Your task to perform on an android device: stop showing notifications on the lock screen Image 0: 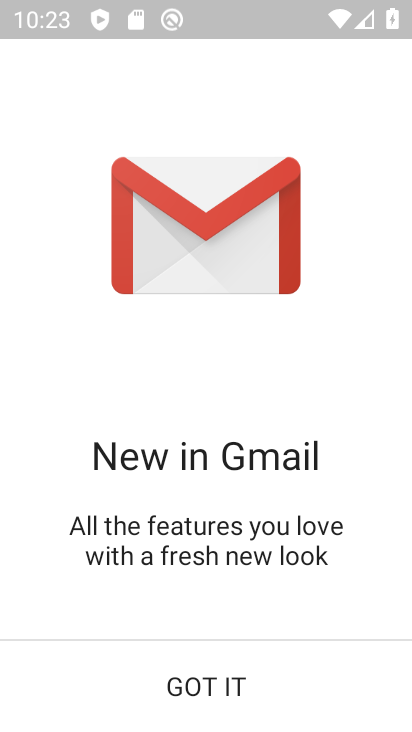
Step 0: press home button
Your task to perform on an android device: stop showing notifications on the lock screen Image 1: 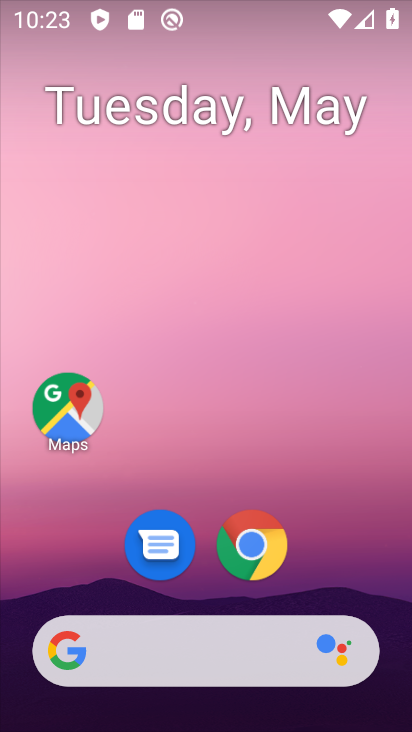
Step 1: drag from (232, 620) to (202, 173)
Your task to perform on an android device: stop showing notifications on the lock screen Image 2: 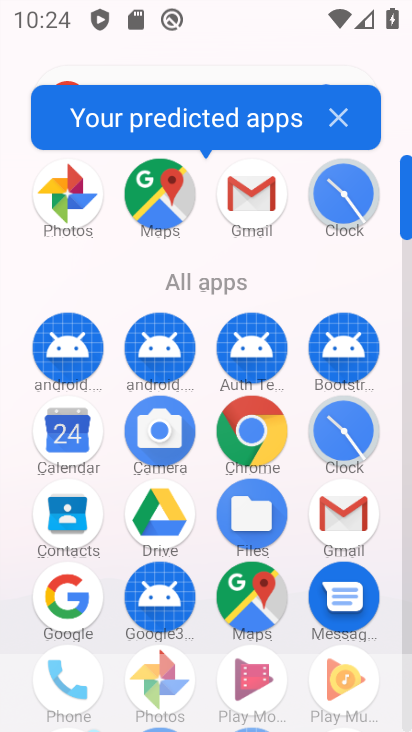
Step 2: drag from (204, 439) to (186, 265)
Your task to perform on an android device: stop showing notifications on the lock screen Image 3: 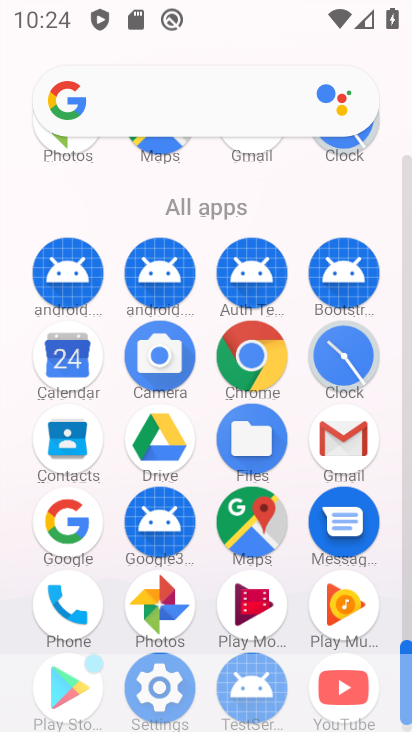
Step 3: drag from (190, 559) to (130, 157)
Your task to perform on an android device: stop showing notifications on the lock screen Image 4: 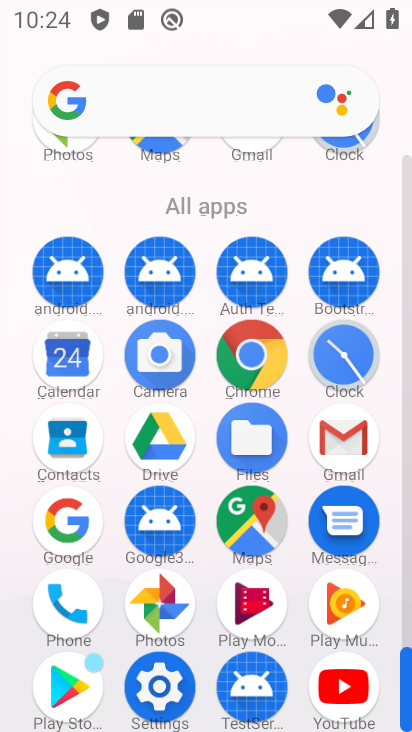
Step 4: click (170, 674)
Your task to perform on an android device: stop showing notifications on the lock screen Image 5: 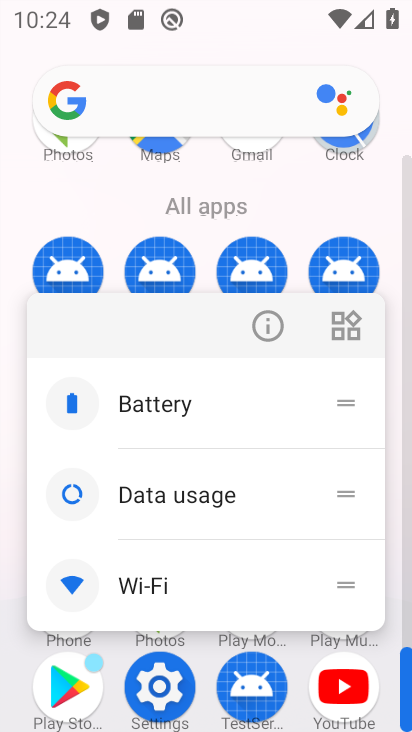
Step 5: click (156, 691)
Your task to perform on an android device: stop showing notifications on the lock screen Image 6: 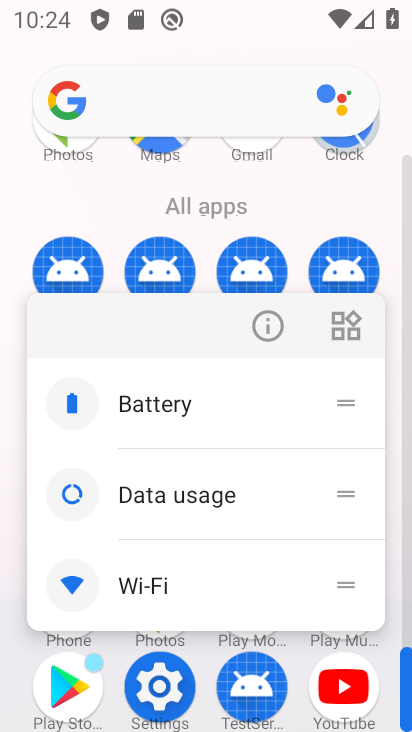
Step 6: click (171, 676)
Your task to perform on an android device: stop showing notifications on the lock screen Image 7: 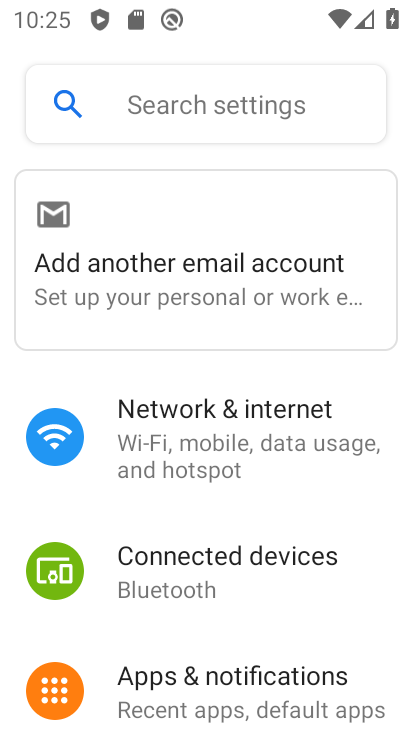
Step 7: drag from (200, 642) to (154, 137)
Your task to perform on an android device: stop showing notifications on the lock screen Image 8: 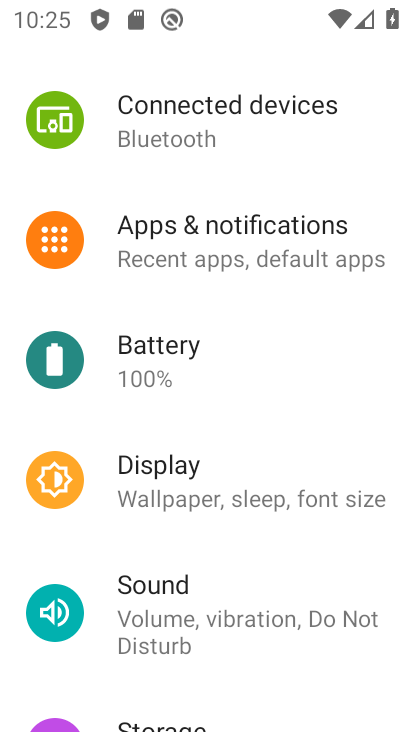
Step 8: click (201, 243)
Your task to perform on an android device: stop showing notifications on the lock screen Image 9: 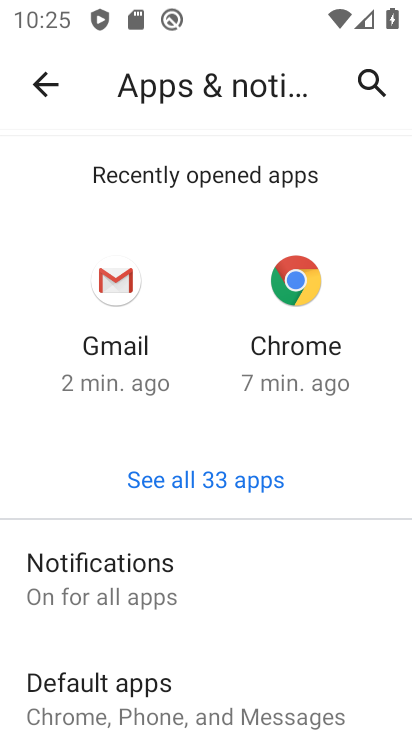
Step 9: click (222, 593)
Your task to perform on an android device: stop showing notifications on the lock screen Image 10: 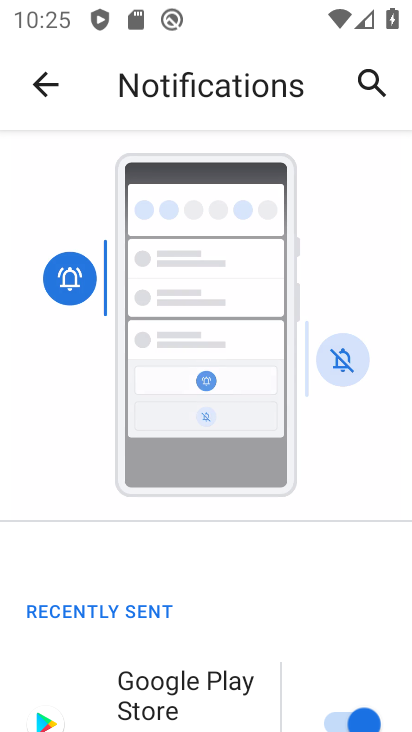
Step 10: click (158, 210)
Your task to perform on an android device: stop showing notifications on the lock screen Image 11: 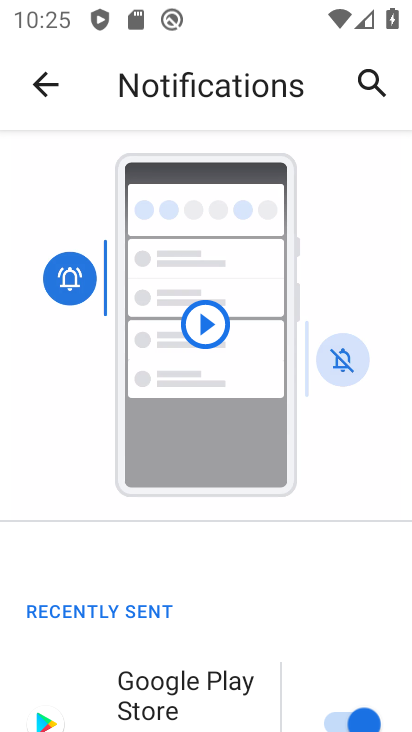
Step 11: drag from (207, 603) to (157, 233)
Your task to perform on an android device: stop showing notifications on the lock screen Image 12: 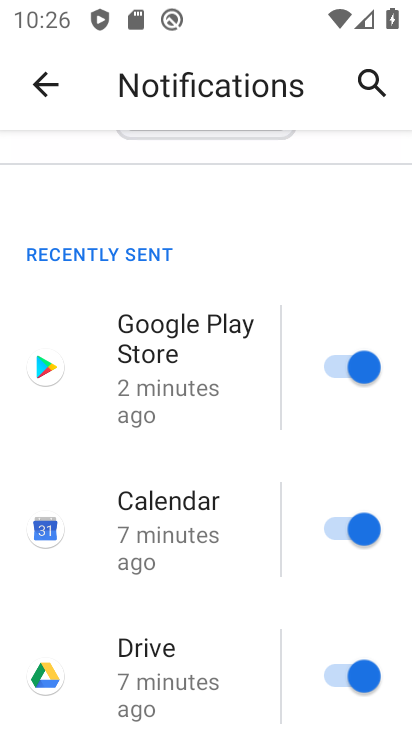
Step 12: drag from (288, 501) to (272, 177)
Your task to perform on an android device: stop showing notifications on the lock screen Image 13: 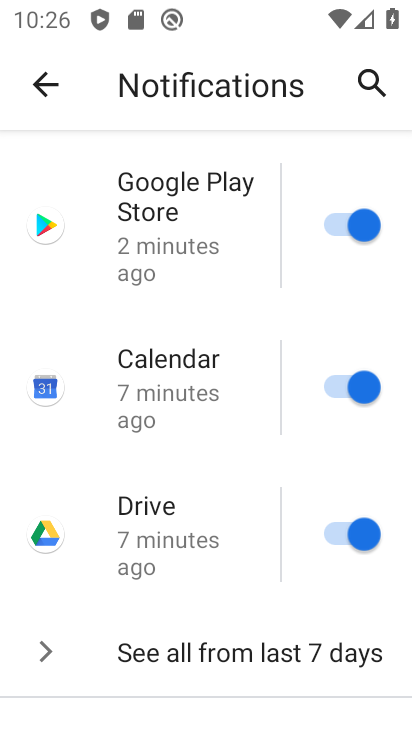
Step 13: drag from (187, 632) to (180, 133)
Your task to perform on an android device: stop showing notifications on the lock screen Image 14: 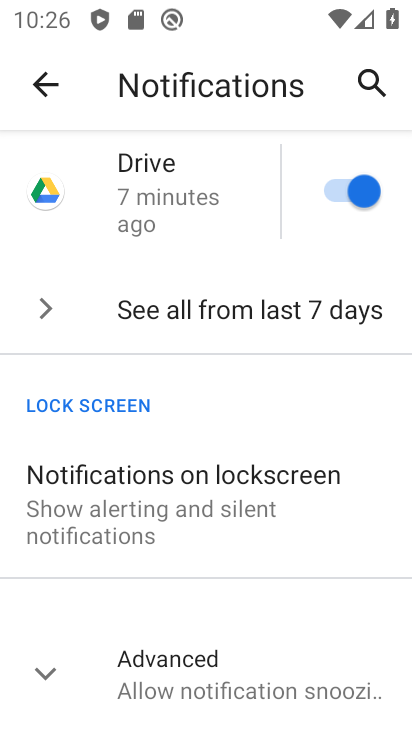
Step 14: drag from (173, 656) to (124, 220)
Your task to perform on an android device: stop showing notifications on the lock screen Image 15: 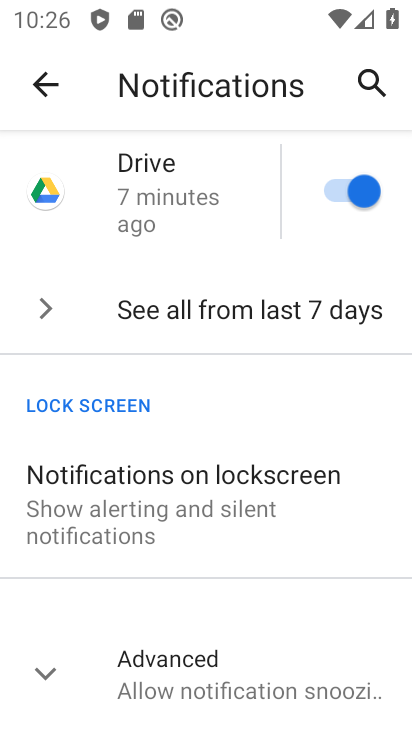
Step 15: click (150, 498)
Your task to perform on an android device: stop showing notifications on the lock screen Image 16: 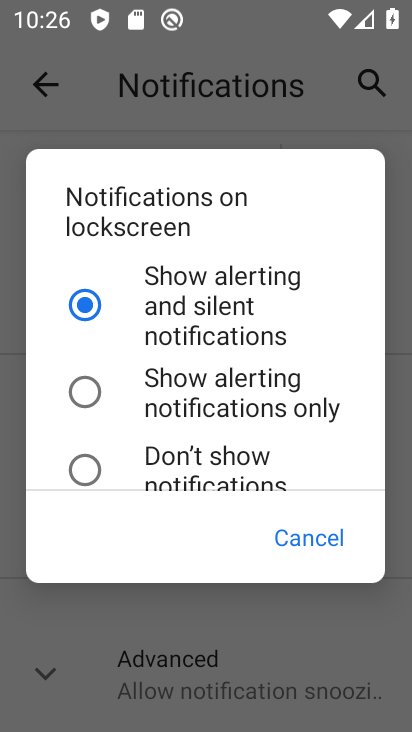
Step 16: click (159, 453)
Your task to perform on an android device: stop showing notifications on the lock screen Image 17: 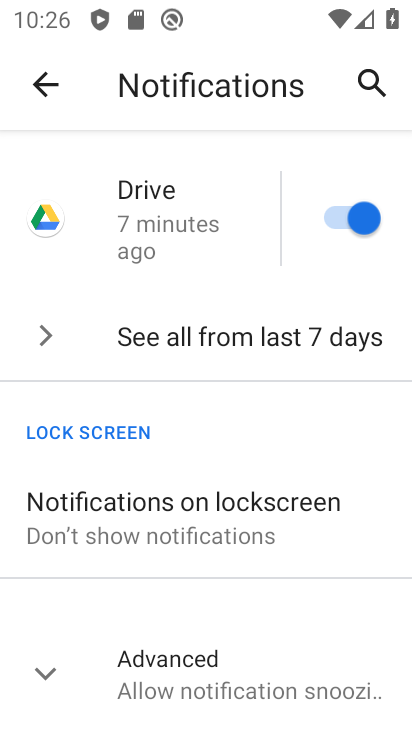
Step 17: task complete